Your task to perform on an android device: turn on translation in the chrome app Image 0: 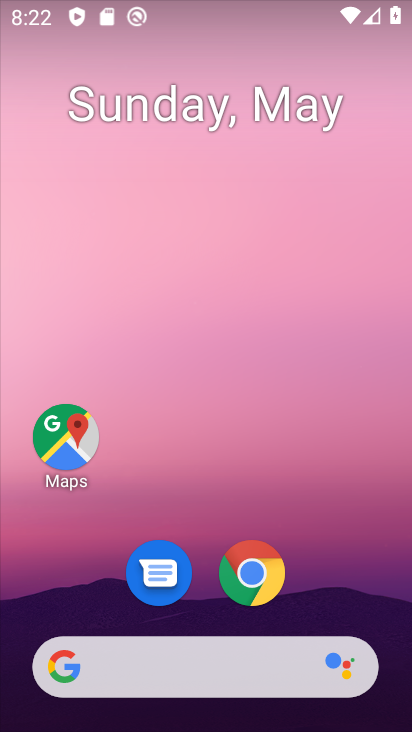
Step 0: click (243, 582)
Your task to perform on an android device: turn on translation in the chrome app Image 1: 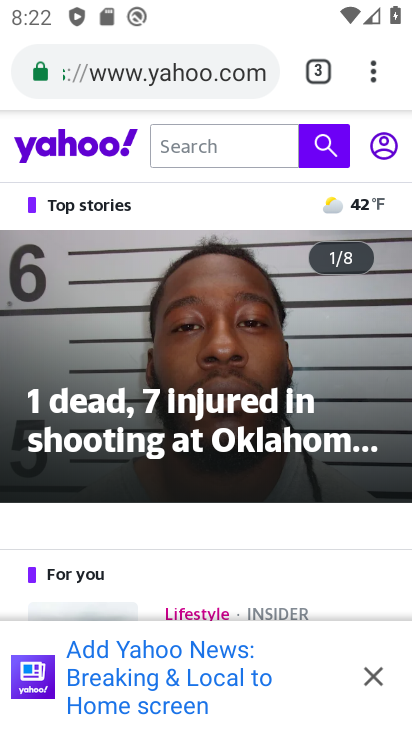
Step 1: click (391, 95)
Your task to perform on an android device: turn on translation in the chrome app Image 2: 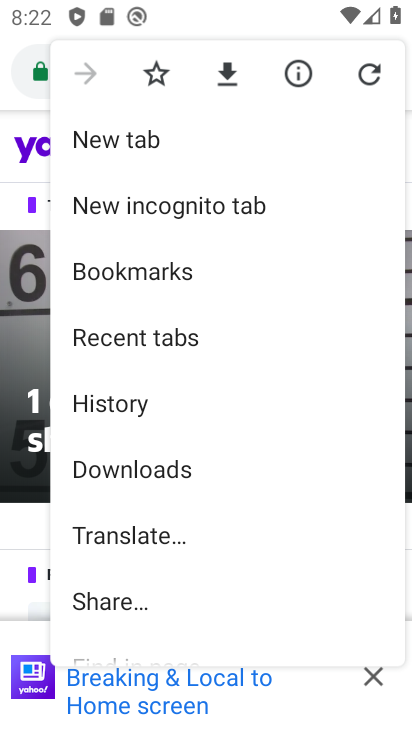
Step 2: drag from (156, 611) to (198, 200)
Your task to perform on an android device: turn on translation in the chrome app Image 3: 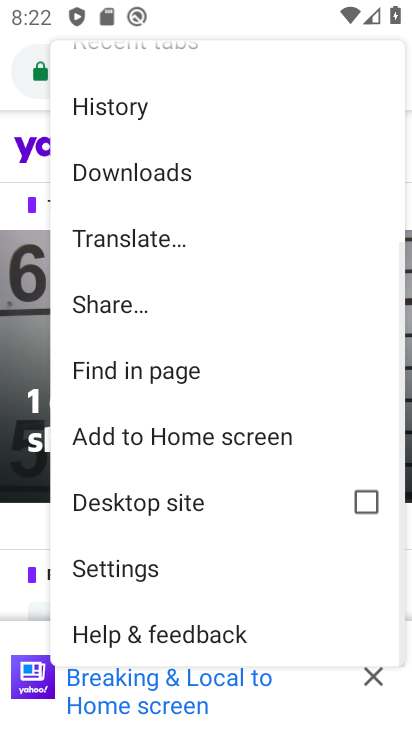
Step 3: click (145, 575)
Your task to perform on an android device: turn on translation in the chrome app Image 4: 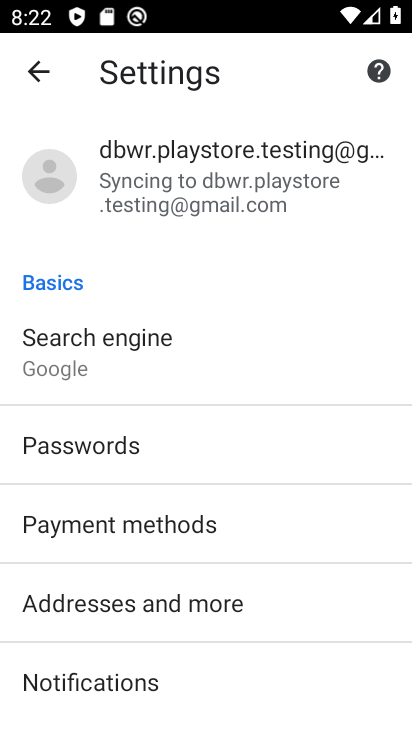
Step 4: drag from (181, 690) to (234, 261)
Your task to perform on an android device: turn on translation in the chrome app Image 5: 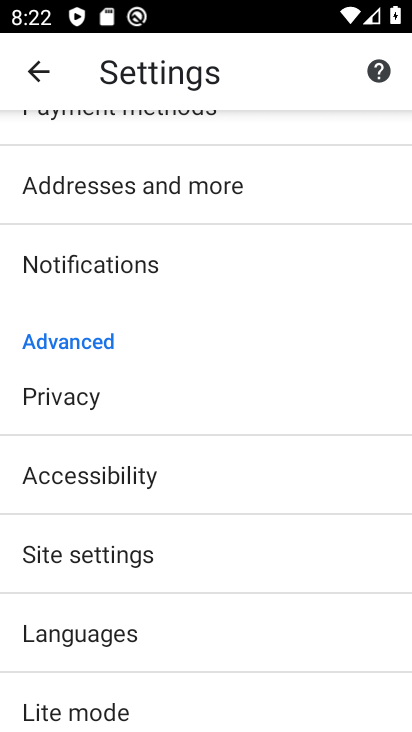
Step 5: click (174, 628)
Your task to perform on an android device: turn on translation in the chrome app Image 6: 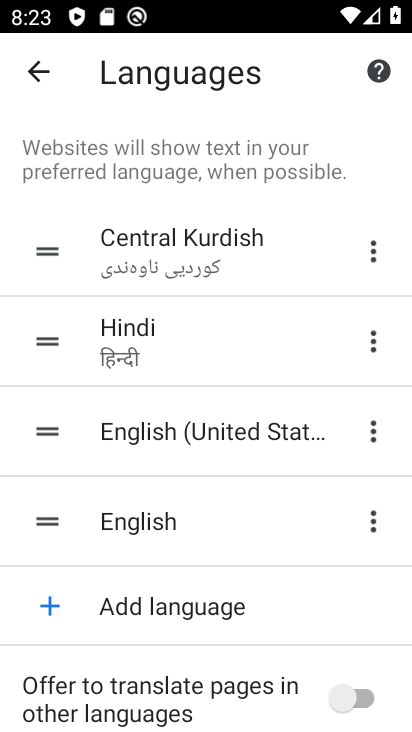
Step 6: click (361, 708)
Your task to perform on an android device: turn on translation in the chrome app Image 7: 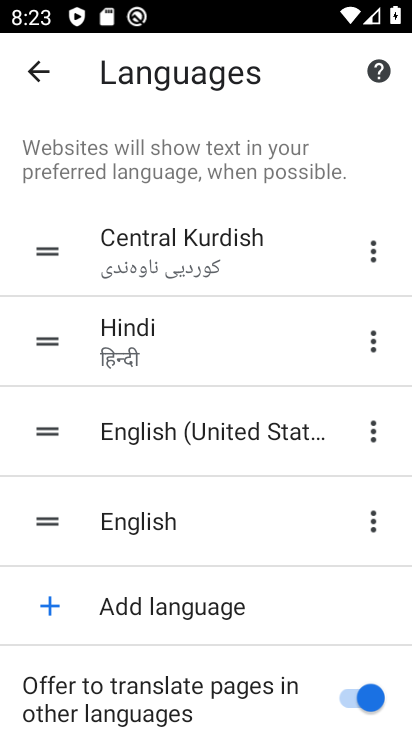
Step 7: task complete